Your task to perform on an android device: add a label to a message in the gmail app Image 0: 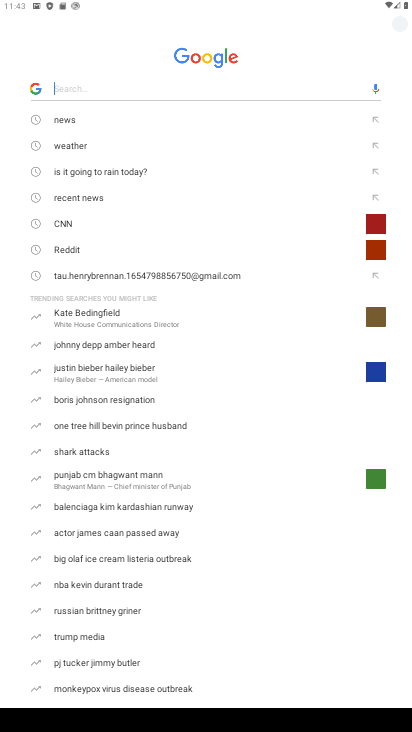
Step 0: press home button
Your task to perform on an android device: add a label to a message in the gmail app Image 1: 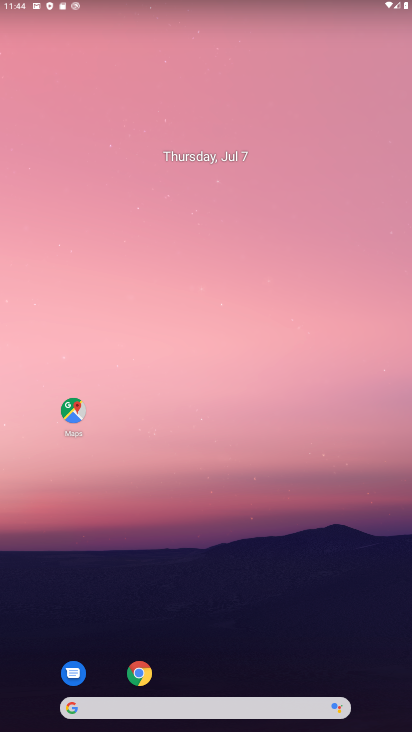
Step 1: drag from (328, 618) to (335, 28)
Your task to perform on an android device: add a label to a message in the gmail app Image 2: 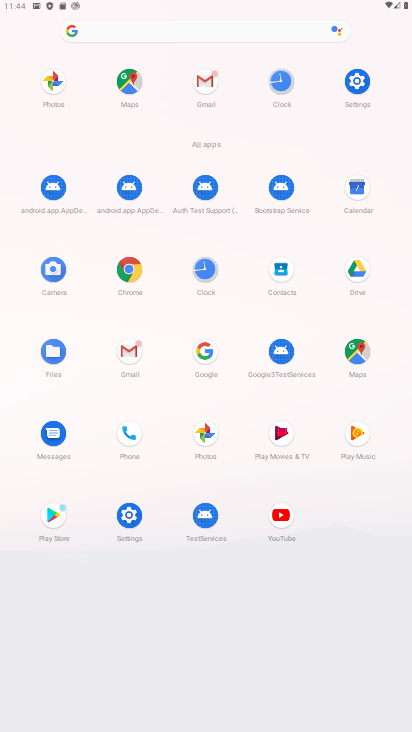
Step 2: click (208, 81)
Your task to perform on an android device: add a label to a message in the gmail app Image 3: 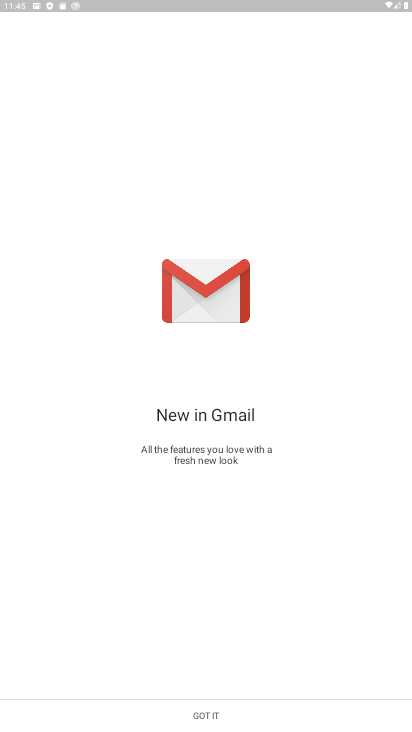
Step 3: click (198, 712)
Your task to perform on an android device: add a label to a message in the gmail app Image 4: 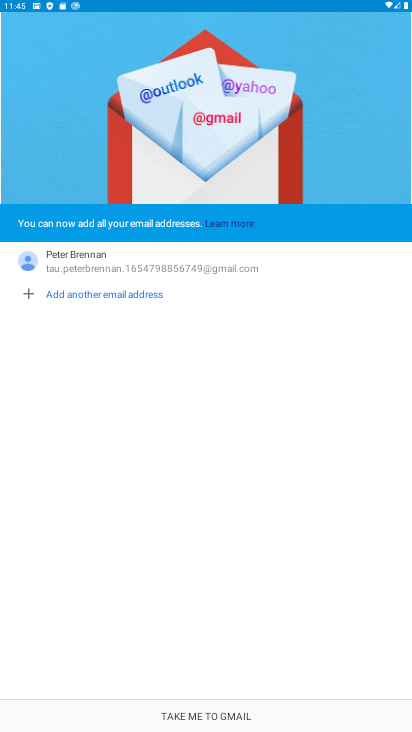
Step 4: click (197, 709)
Your task to perform on an android device: add a label to a message in the gmail app Image 5: 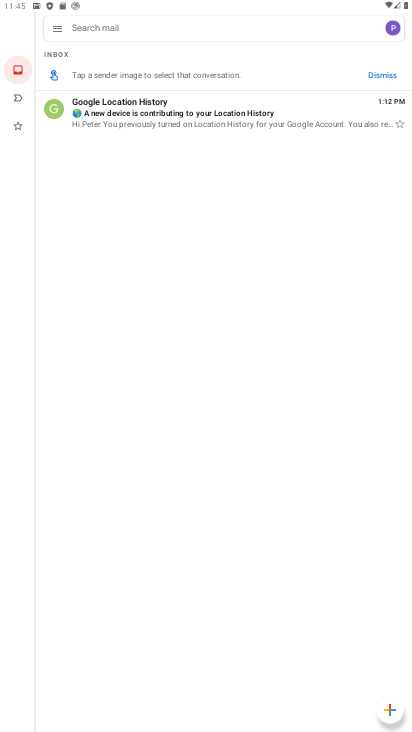
Step 5: click (49, 118)
Your task to perform on an android device: add a label to a message in the gmail app Image 6: 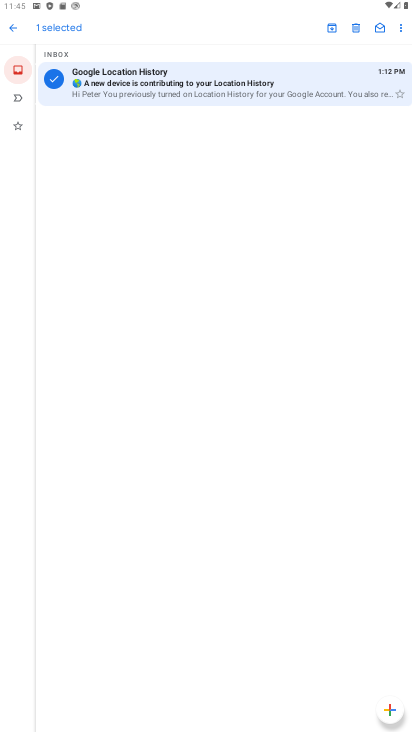
Step 6: click (402, 24)
Your task to perform on an android device: add a label to a message in the gmail app Image 7: 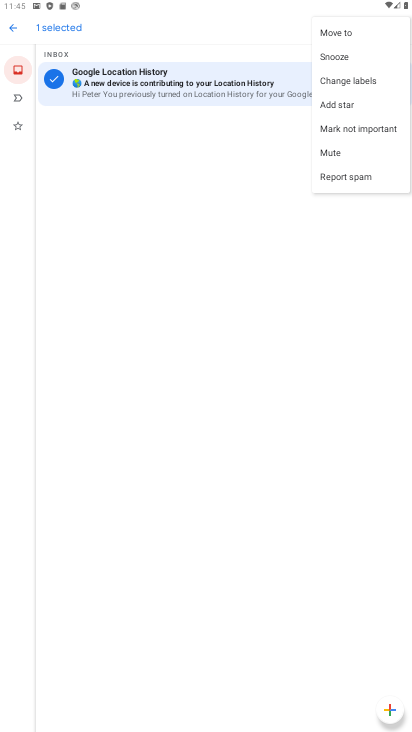
Step 7: click (239, 193)
Your task to perform on an android device: add a label to a message in the gmail app Image 8: 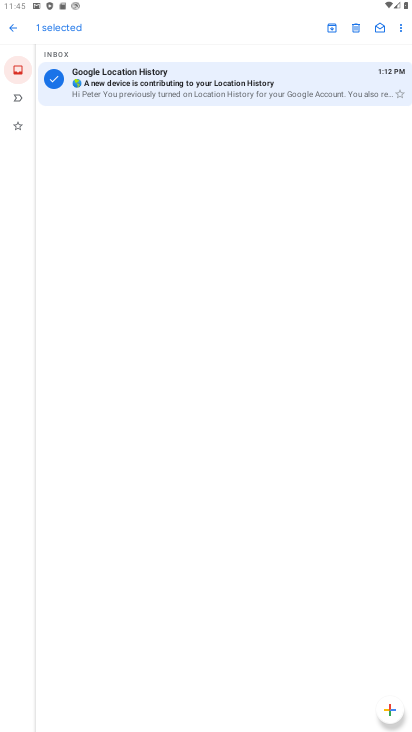
Step 8: click (406, 26)
Your task to perform on an android device: add a label to a message in the gmail app Image 9: 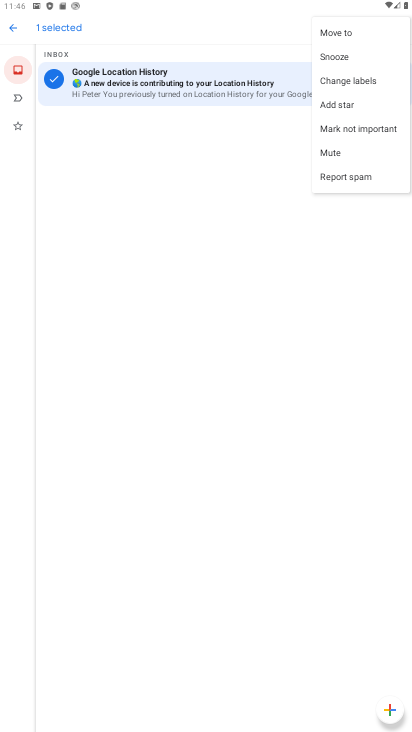
Step 9: click (373, 83)
Your task to perform on an android device: add a label to a message in the gmail app Image 10: 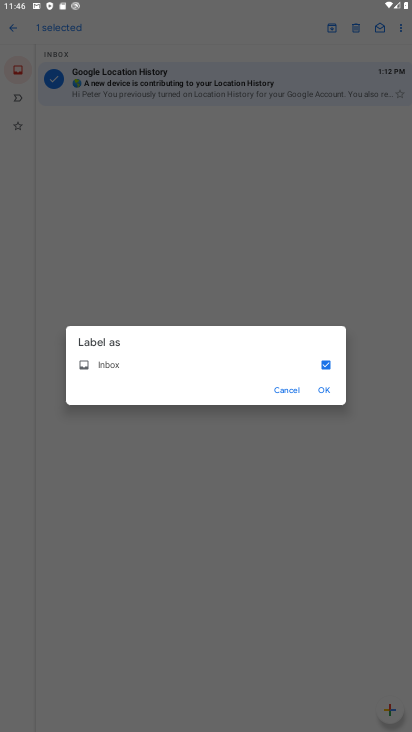
Step 10: click (281, 390)
Your task to perform on an android device: add a label to a message in the gmail app Image 11: 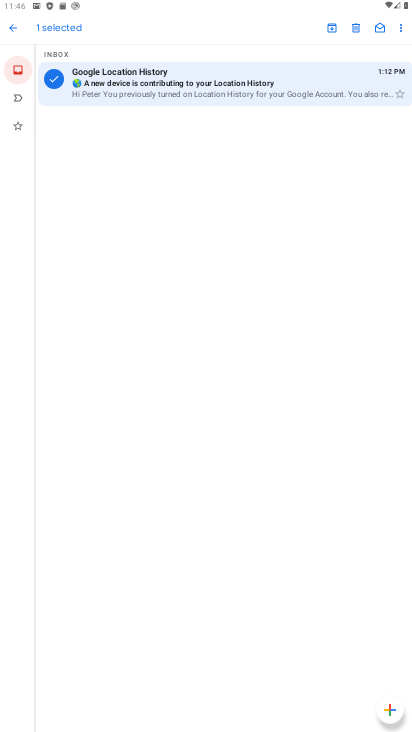
Step 11: task complete